Your task to perform on an android device: Open calendar and show me the second week of next month Image 0: 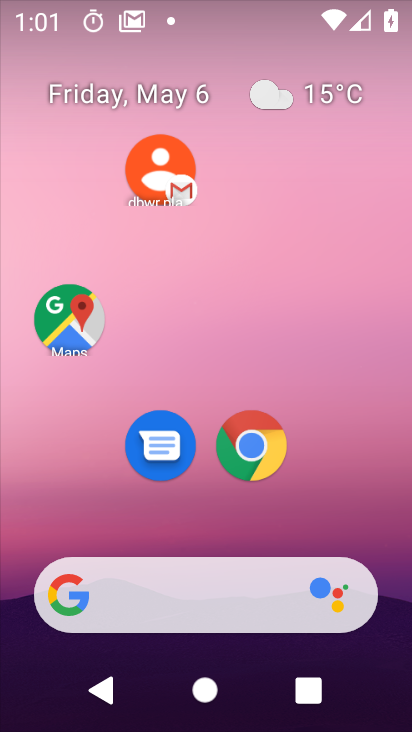
Step 0: drag from (338, 574) to (163, 89)
Your task to perform on an android device: Open calendar and show me the second week of next month Image 1: 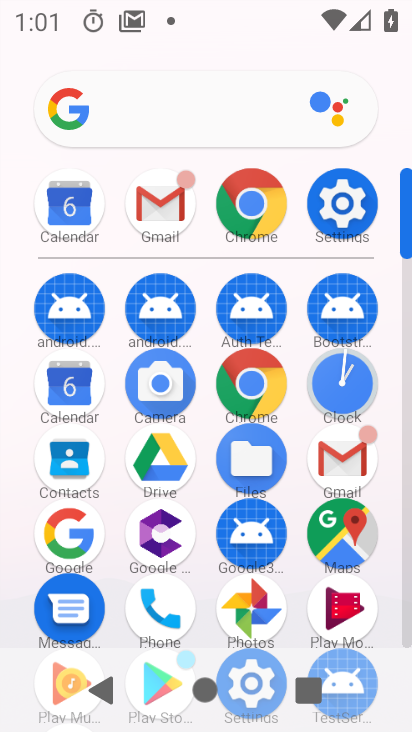
Step 1: click (76, 401)
Your task to perform on an android device: Open calendar and show me the second week of next month Image 2: 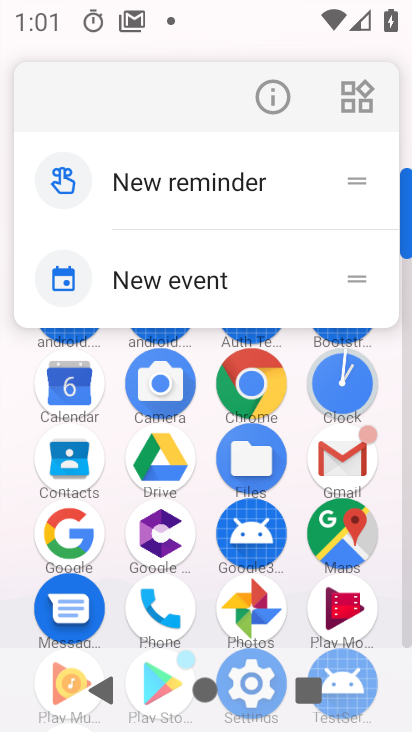
Step 2: click (69, 400)
Your task to perform on an android device: Open calendar and show me the second week of next month Image 3: 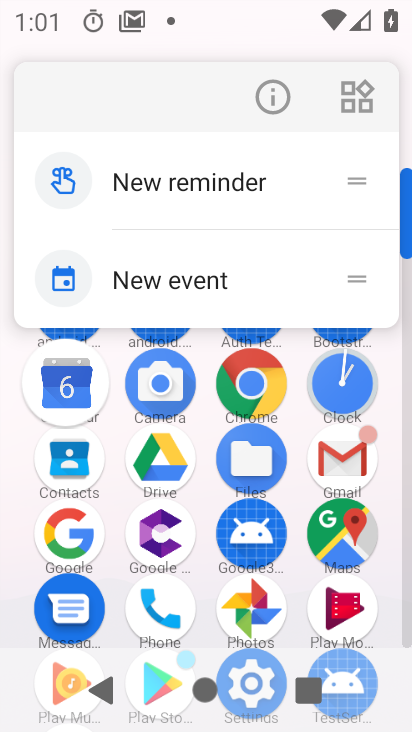
Step 3: click (68, 396)
Your task to perform on an android device: Open calendar and show me the second week of next month Image 4: 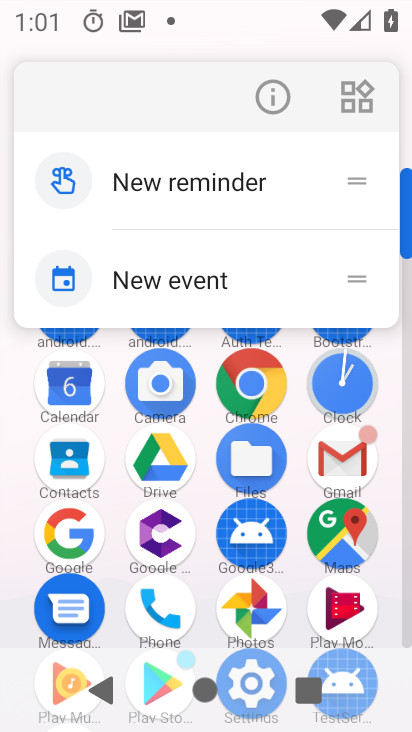
Step 4: click (87, 402)
Your task to perform on an android device: Open calendar and show me the second week of next month Image 5: 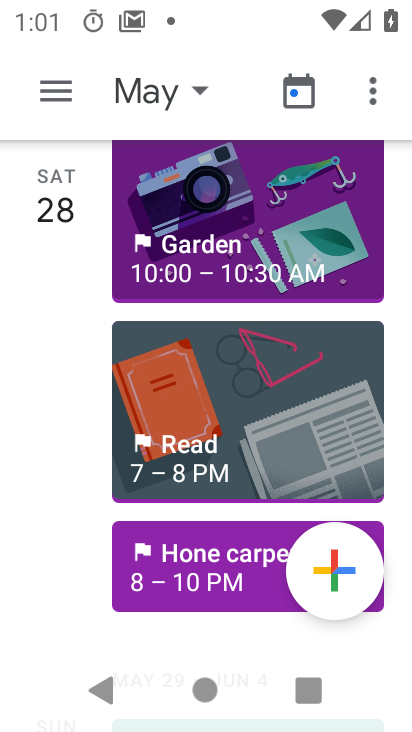
Step 5: drag from (206, 191) to (240, 447)
Your task to perform on an android device: Open calendar and show me the second week of next month Image 6: 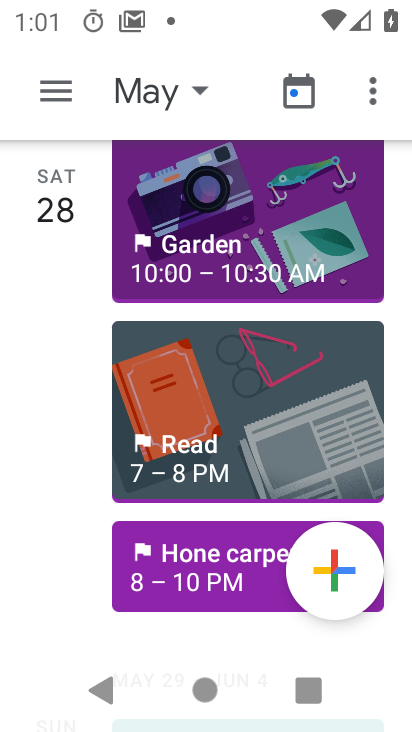
Step 6: drag from (225, 429) to (241, 537)
Your task to perform on an android device: Open calendar and show me the second week of next month Image 7: 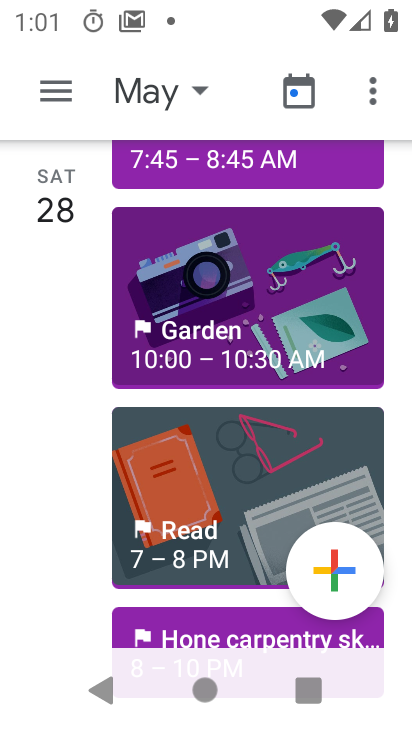
Step 7: drag from (251, 433) to (296, 619)
Your task to perform on an android device: Open calendar and show me the second week of next month Image 8: 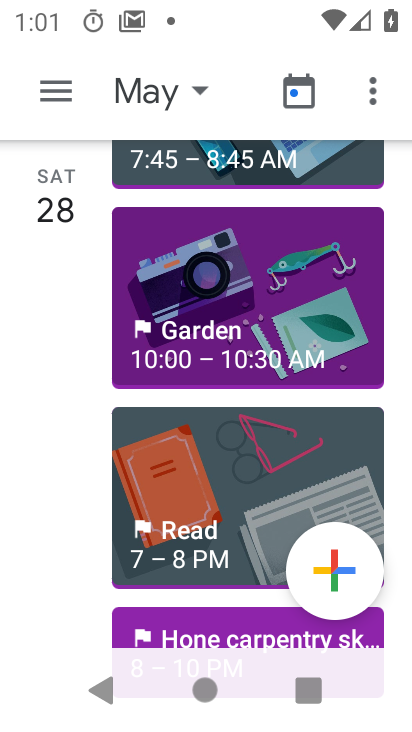
Step 8: drag from (221, 275) to (241, 571)
Your task to perform on an android device: Open calendar and show me the second week of next month Image 9: 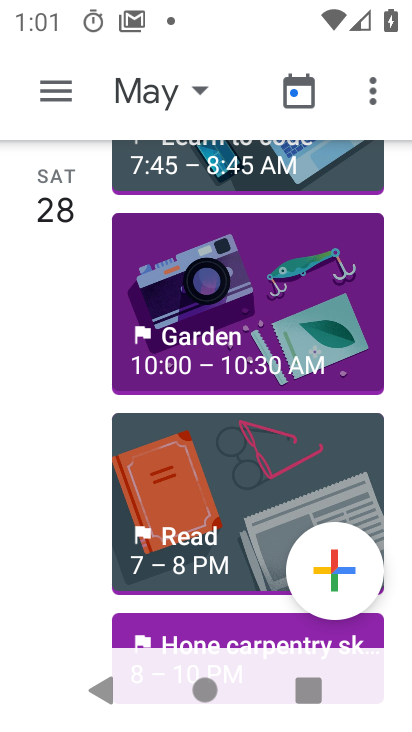
Step 9: click (200, 86)
Your task to perform on an android device: Open calendar and show me the second week of next month Image 10: 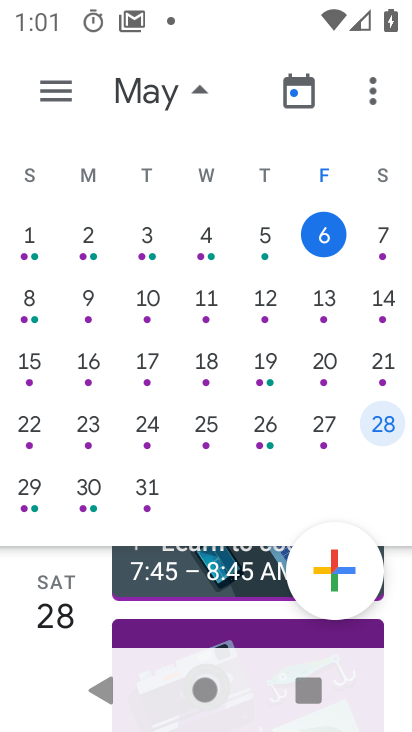
Step 10: drag from (262, 294) to (31, 437)
Your task to perform on an android device: Open calendar and show me the second week of next month Image 11: 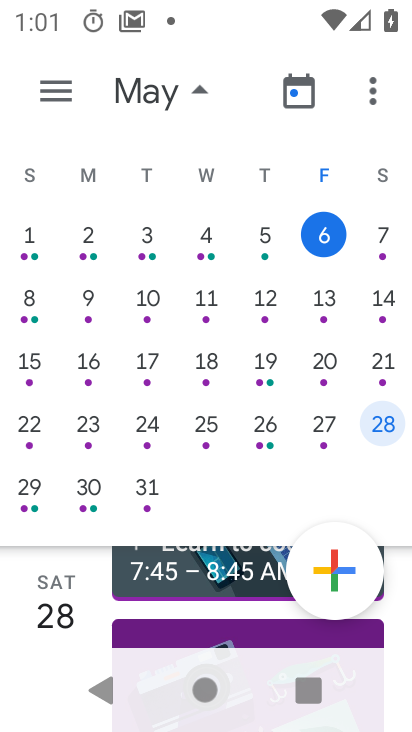
Step 11: drag from (286, 309) to (59, 338)
Your task to perform on an android device: Open calendar and show me the second week of next month Image 12: 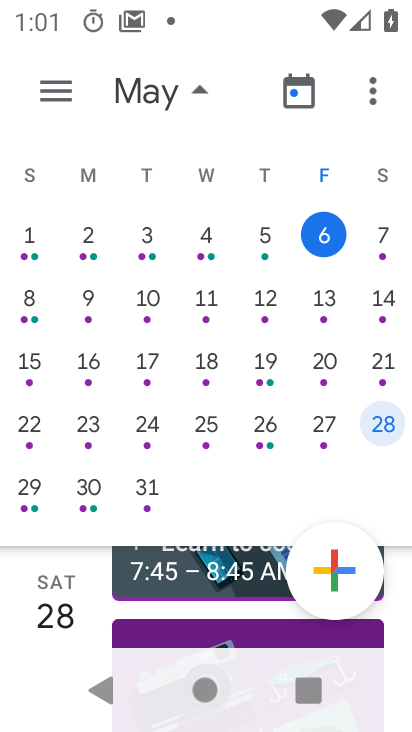
Step 12: drag from (342, 355) to (35, 244)
Your task to perform on an android device: Open calendar and show me the second week of next month Image 13: 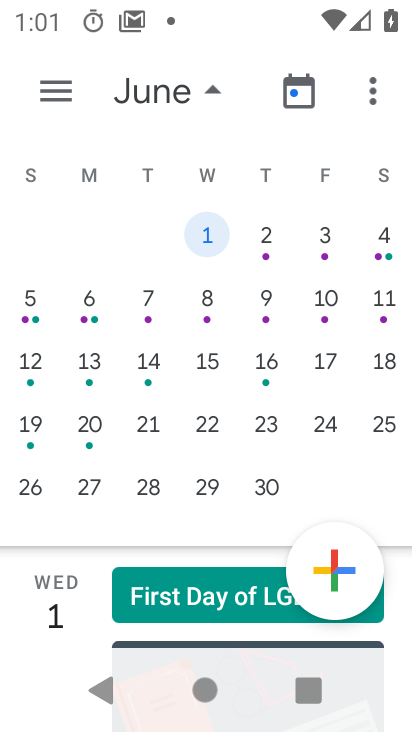
Step 13: drag from (205, 280) to (154, 295)
Your task to perform on an android device: Open calendar and show me the second week of next month Image 14: 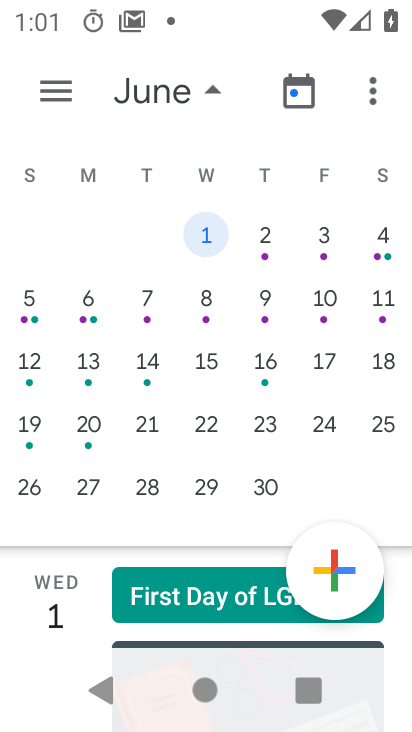
Step 14: drag from (402, 333) to (171, 321)
Your task to perform on an android device: Open calendar and show me the second week of next month Image 15: 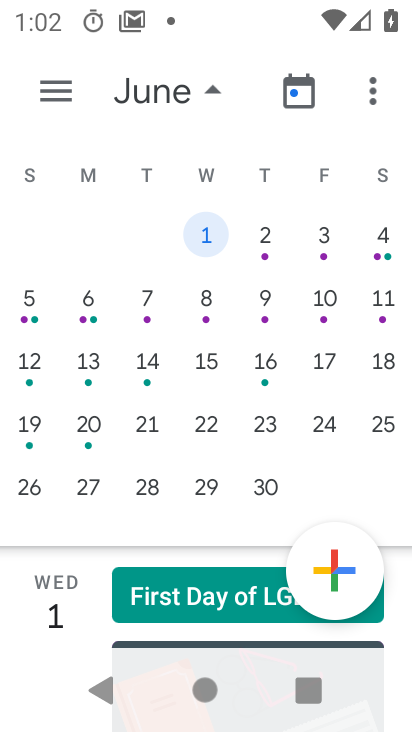
Step 15: click (208, 306)
Your task to perform on an android device: Open calendar and show me the second week of next month Image 16: 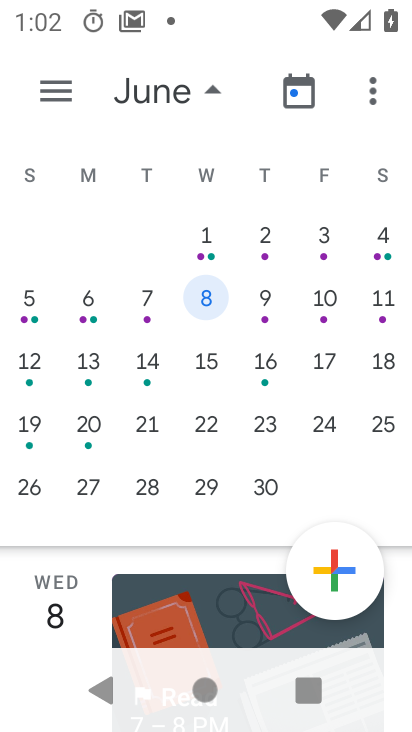
Step 16: click (208, 306)
Your task to perform on an android device: Open calendar and show me the second week of next month Image 17: 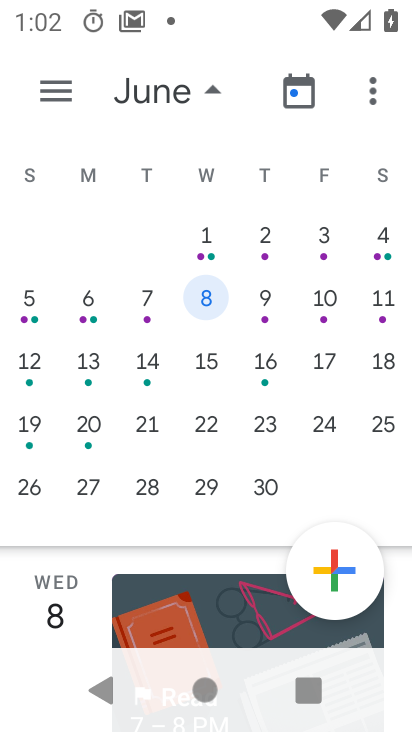
Step 17: click (208, 306)
Your task to perform on an android device: Open calendar and show me the second week of next month Image 18: 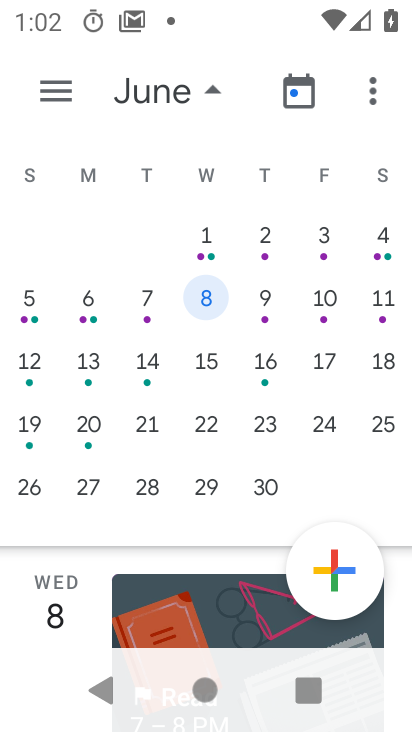
Step 18: task complete